Your task to perform on an android device: Search for hotels in Chicago Image 0: 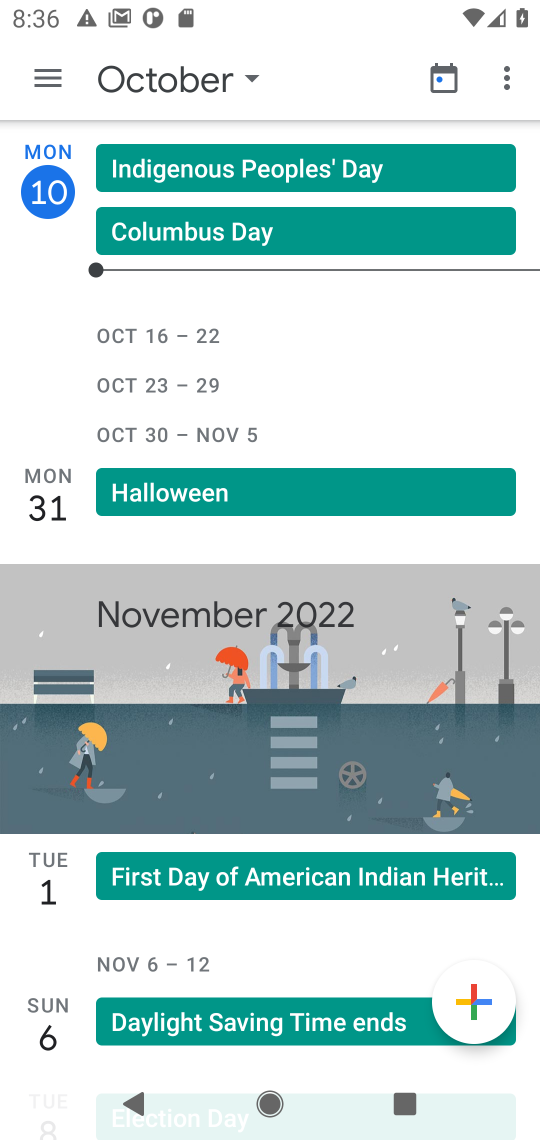
Step 0: press home button
Your task to perform on an android device: Search for hotels in Chicago Image 1: 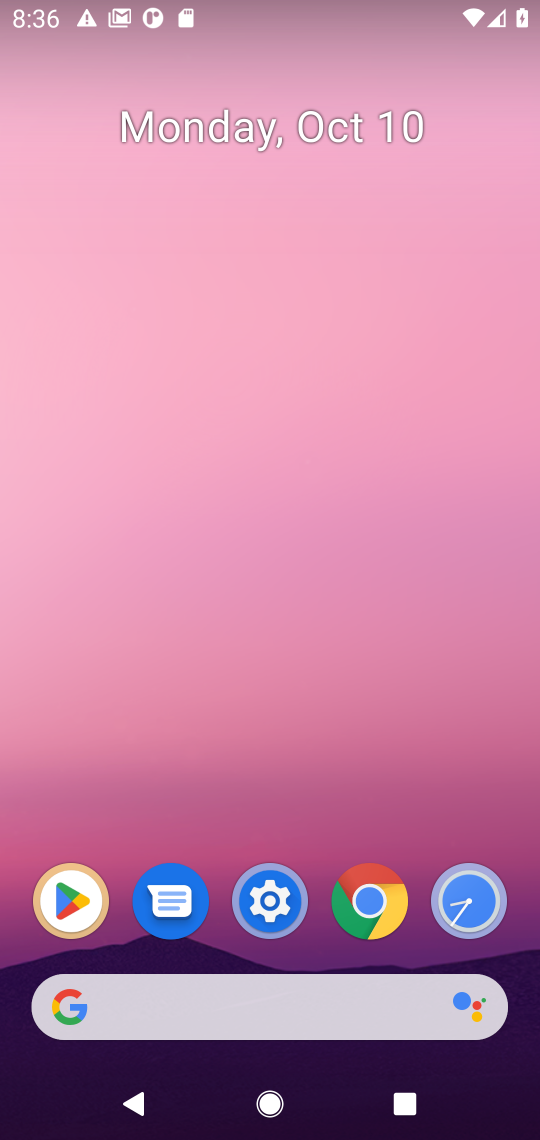
Step 1: click (199, 994)
Your task to perform on an android device: Search for hotels in Chicago Image 2: 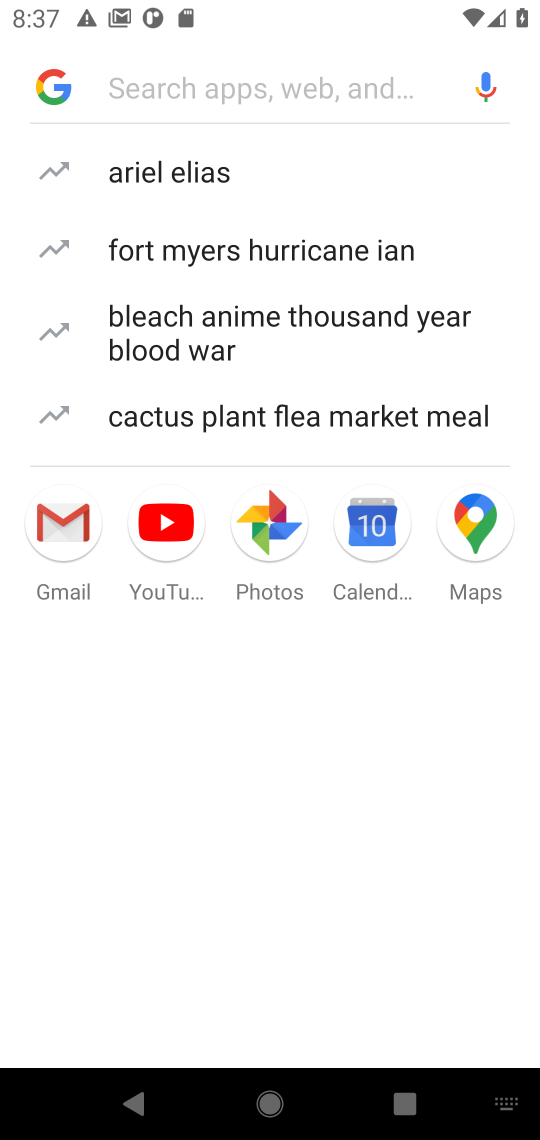
Step 2: type " hotels in Chicago"
Your task to perform on an android device: Search for hotels in Chicago Image 3: 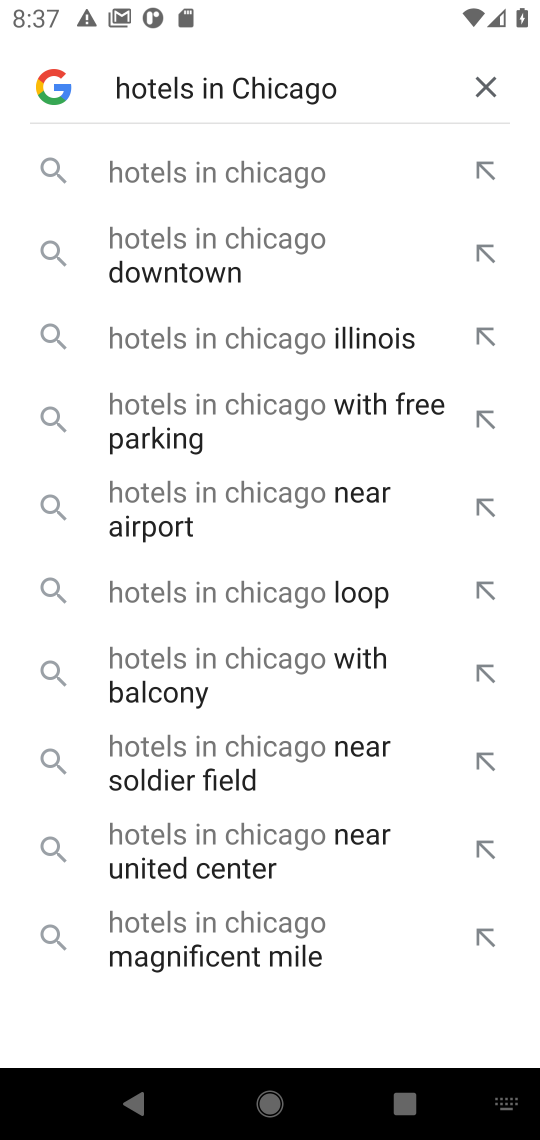
Step 3: press enter
Your task to perform on an android device: Search for hotels in Chicago Image 4: 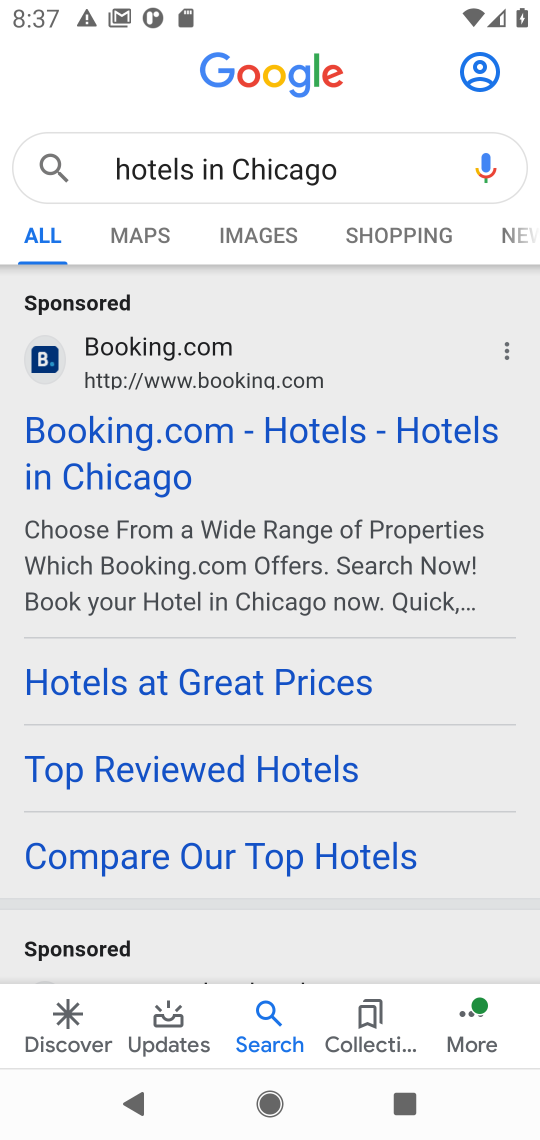
Step 4: click (140, 442)
Your task to perform on an android device: Search for hotels in Chicago Image 5: 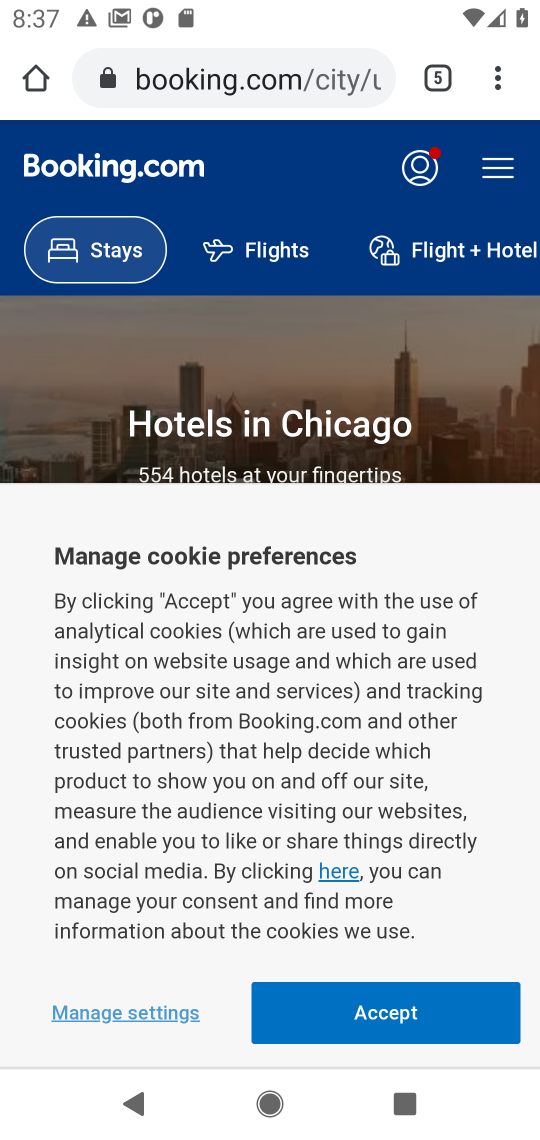
Step 5: click (381, 1012)
Your task to perform on an android device: Search for hotels in Chicago Image 6: 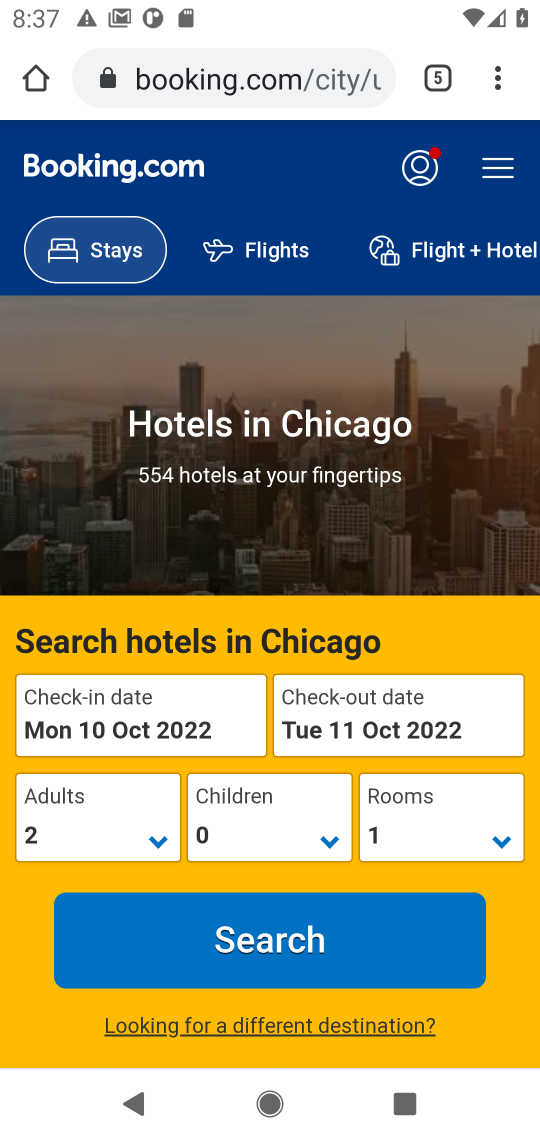
Step 6: click (304, 950)
Your task to perform on an android device: Search for hotels in Chicago Image 7: 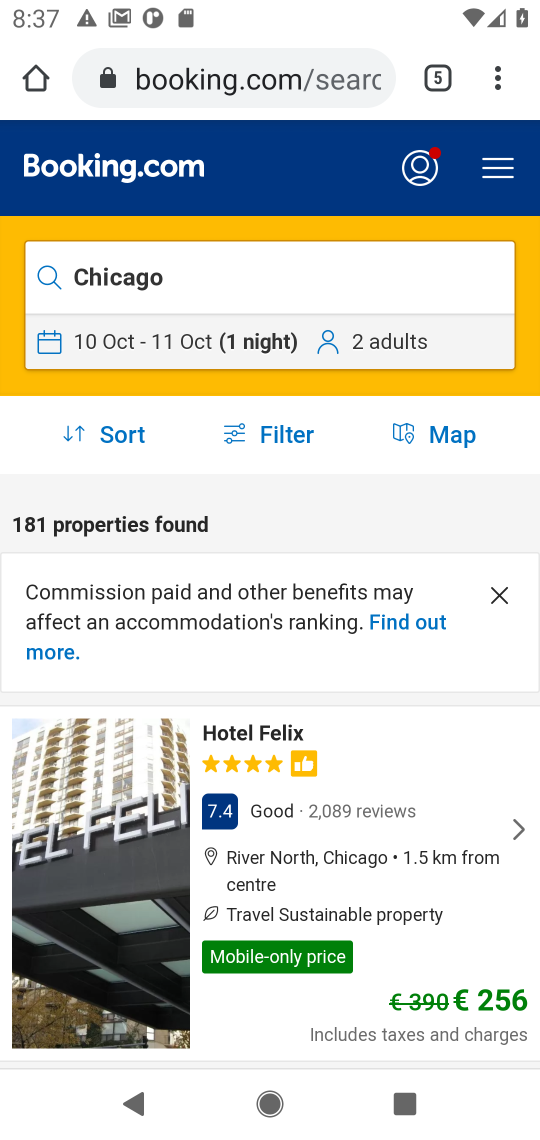
Step 7: task complete